Your task to perform on an android device: Clear the shopping cart on target. Image 0: 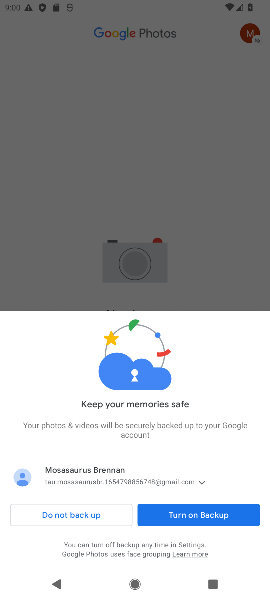
Step 0: press home button
Your task to perform on an android device: Clear the shopping cart on target. Image 1: 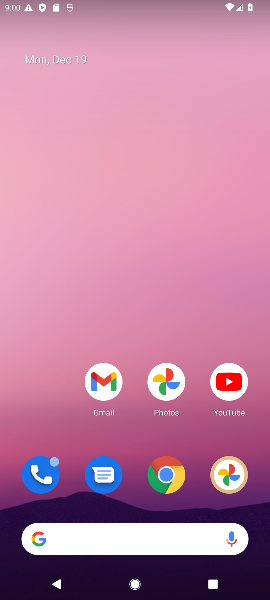
Step 1: click (167, 471)
Your task to perform on an android device: Clear the shopping cart on target. Image 2: 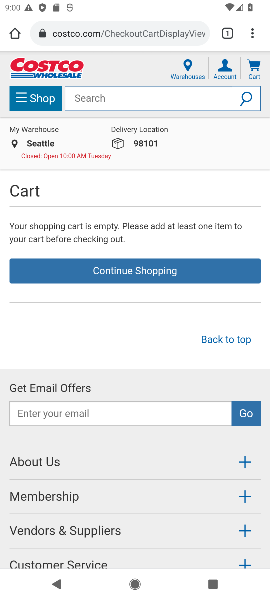
Step 2: click (147, 33)
Your task to perform on an android device: Clear the shopping cart on target. Image 3: 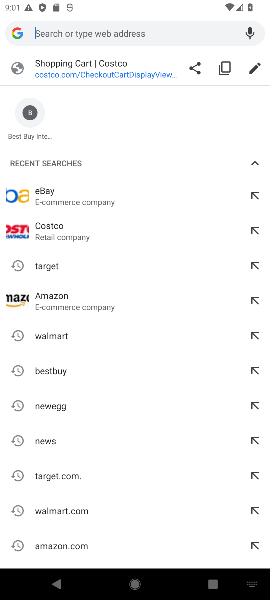
Step 3: click (58, 270)
Your task to perform on an android device: Clear the shopping cart on target. Image 4: 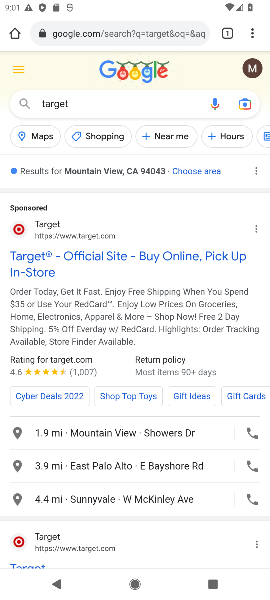
Step 4: click (118, 252)
Your task to perform on an android device: Clear the shopping cart on target. Image 5: 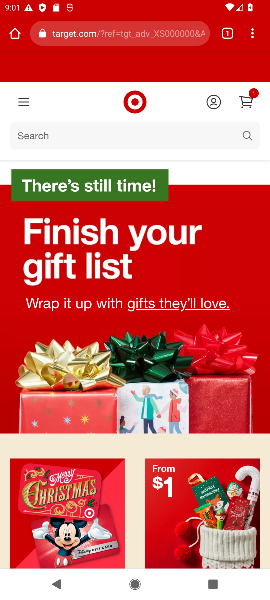
Step 5: click (210, 140)
Your task to perform on an android device: Clear the shopping cart on target. Image 6: 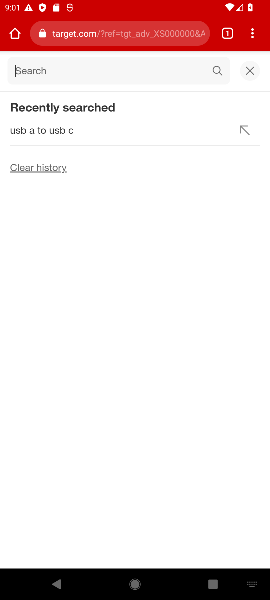
Step 6: click (92, 36)
Your task to perform on an android device: Clear the shopping cart on target. Image 7: 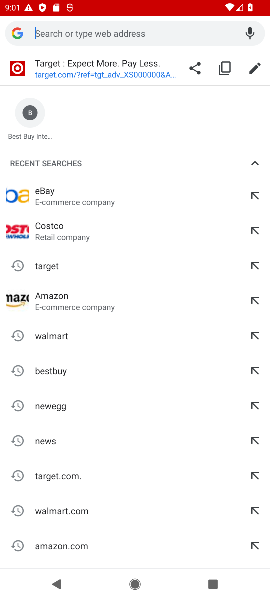
Step 7: click (58, 74)
Your task to perform on an android device: Clear the shopping cart on target. Image 8: 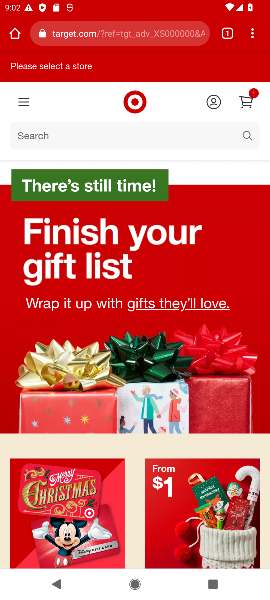
Step 8: click (246, 98)
Your task to perform on an android device: Clear the shopping cart on target. Image 9: 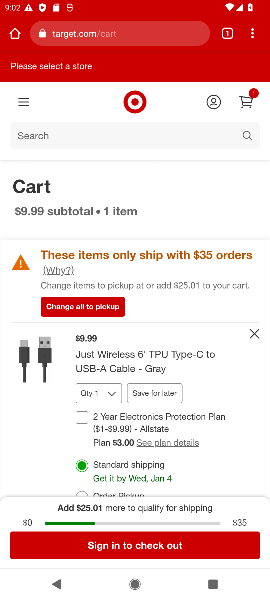
Step 9: click (252, 334)
Your task to perform on an android device: Clear the shopping cart on target. Image 10: 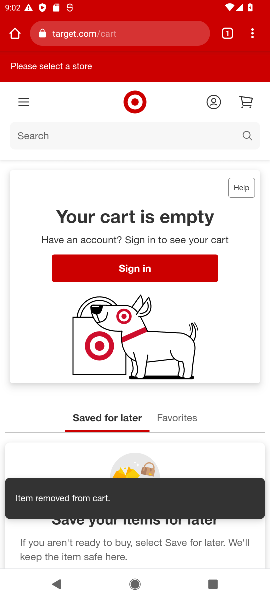
Step 10: task complete